Your task to perform on an android device: Go to Wikipedia Image 0: 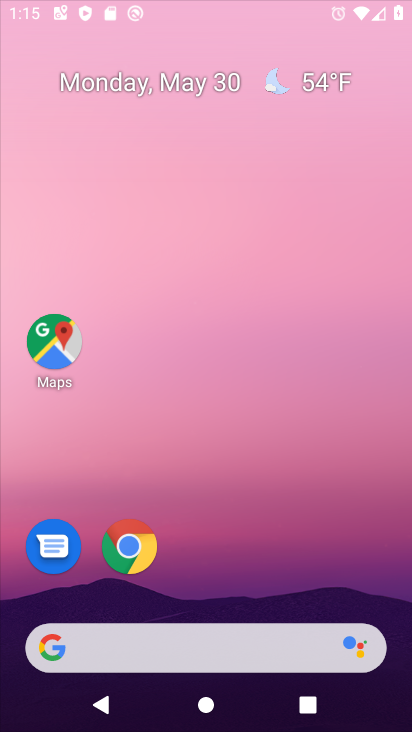
Step 0: press home button
Your task to perform on an android device: Go to Wikipedia Image 1: 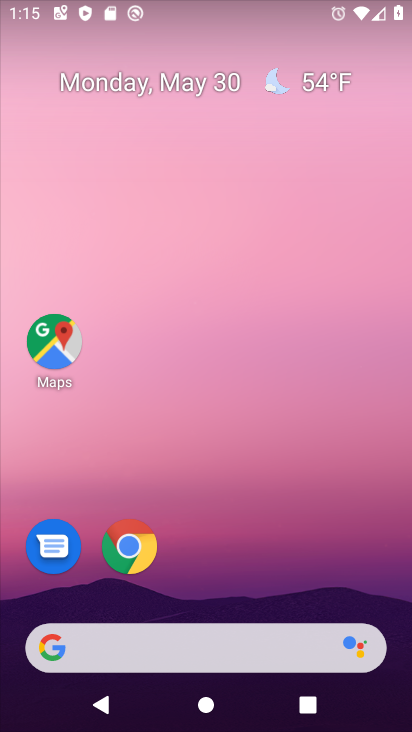
Step 1: click (60, 652)
Your task to perform on an android device: Go to Wikipedia Image 2: 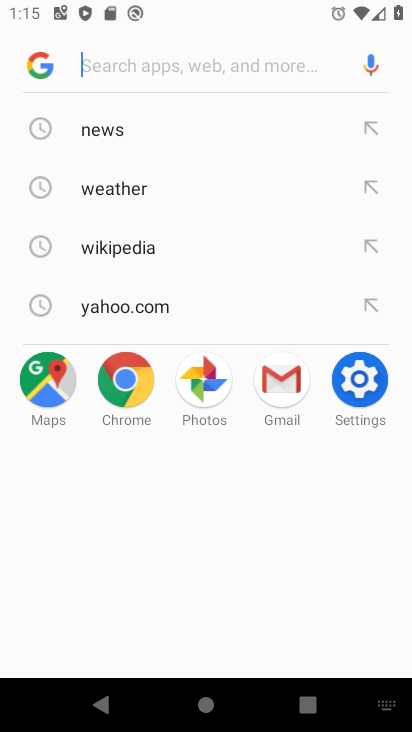
Step 2: click (123, 247)
Your task to perform on an android device: Go to Wikipedia Image 3: 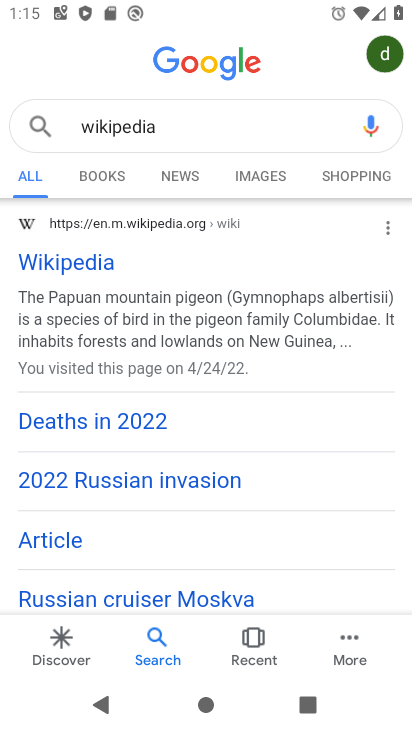
Step 3: click (69, 265)
Your task to perform on an android device: Go to Wikipedia Image 4: 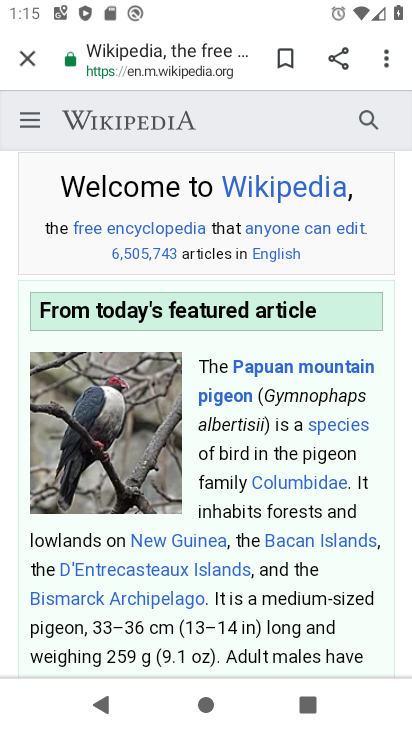
Step 4: task complete